Your task to perform on an android device: move an email to a new category in the gmail app Image 0: 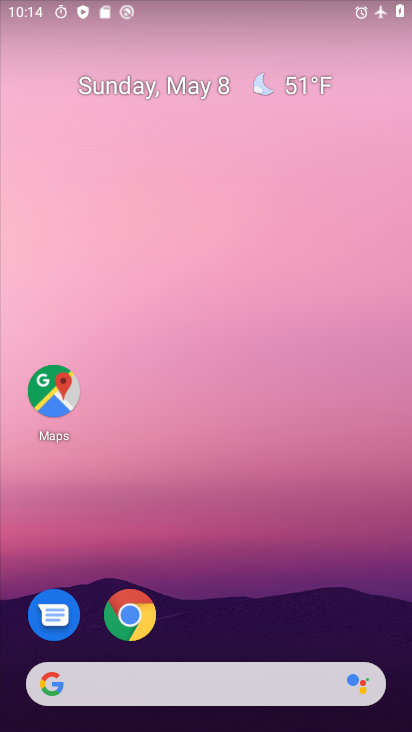
Step 0: drag from (191, 617) to (170, 105)
Your task to perform on an android device: move an email to a new category in the gmail app Image 1: 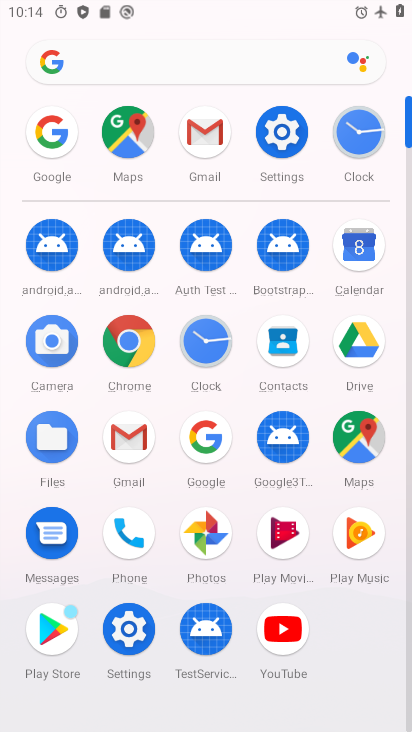
Step 1: click (185, 130)
Your task to perform on an android device: move an email to a new category in the gmail app Image 2: 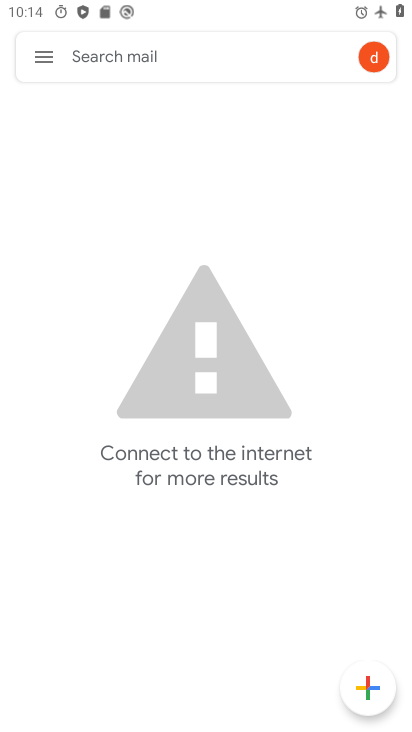
Step 2: task complete